Your task to perform on an android device: Go to wifi settings Image 0: 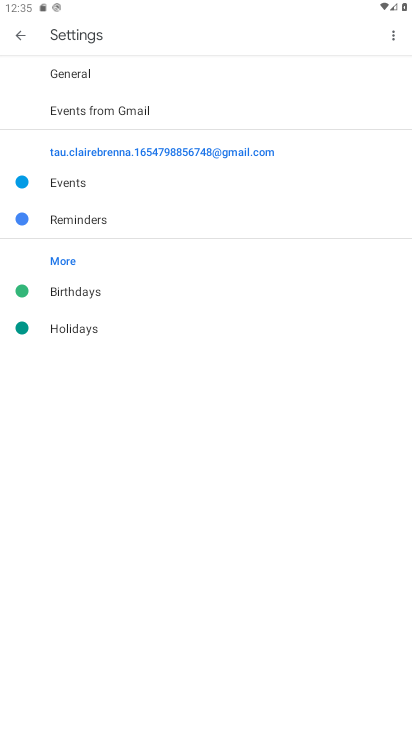
Step 0: click (135, 26)
Your task to perform on an android device: Go to wifi settings Image 1: 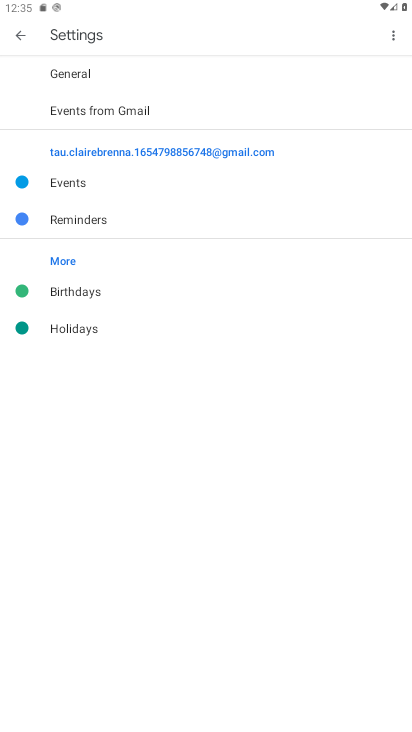
Step 1: press back button
Your task to perform on an android device: Go to wifi settings Image 2: 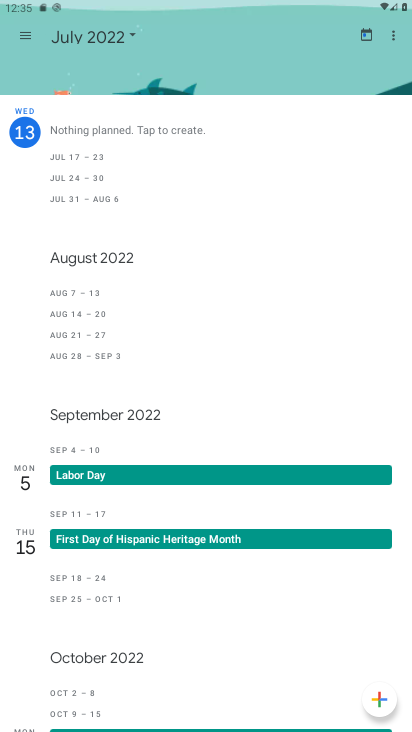
Step 2: press home button
Your task to perform on an android device: Go to wifi settings Image 3: 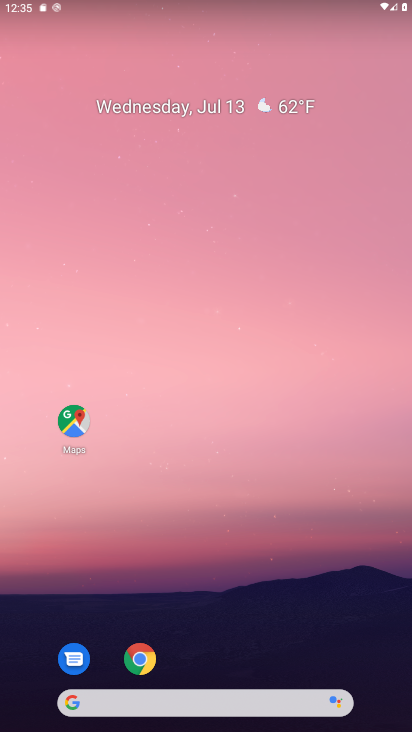
Step 3: drag from (259, 705) to (151, 16)
Your task to perform on an android device: Go to wifi settings Image 4: 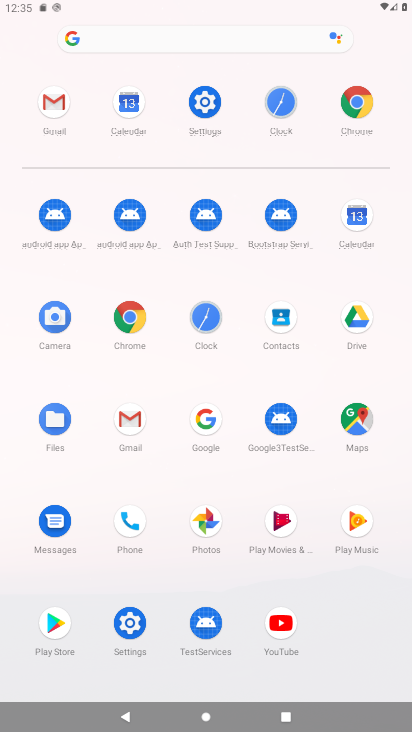
Step 4: click (130, 631)
Your task to perform on an android device: Go to wifi settings Image 5: 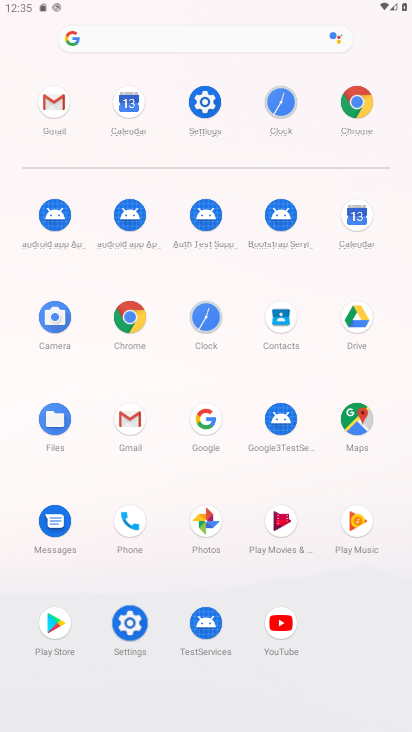
Step 5: click (128, 629)
Your task to perform on an android device: Go to wifi settings Image 6: 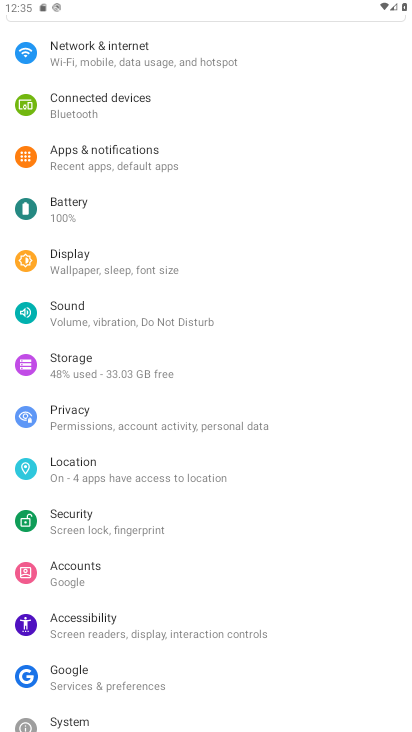
Step 6: click (117, 69)
Your task to perform on an android device: Go to wifi settings Image 7: 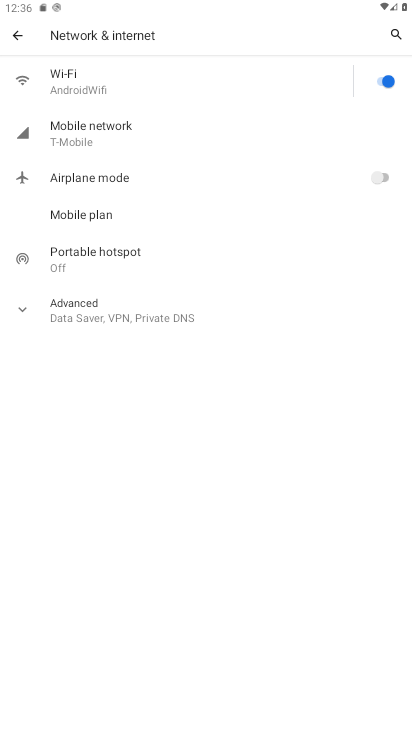
Step 7: task complete